Your task to perform on an android device: Show me recent news Image 0: 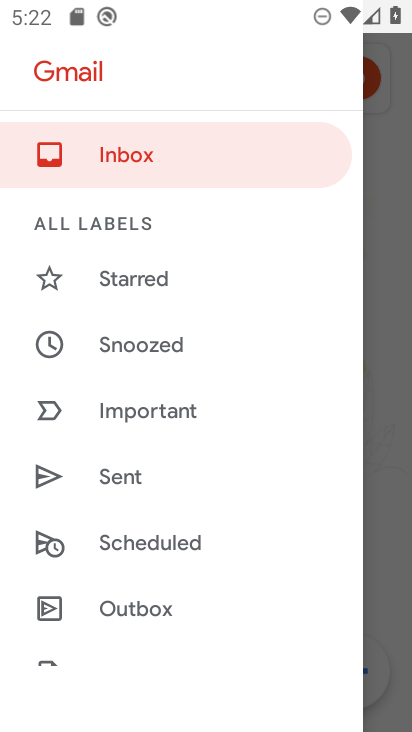
Step 0: press home button
Your task to perform on an android device: Show me recent news Image 1: 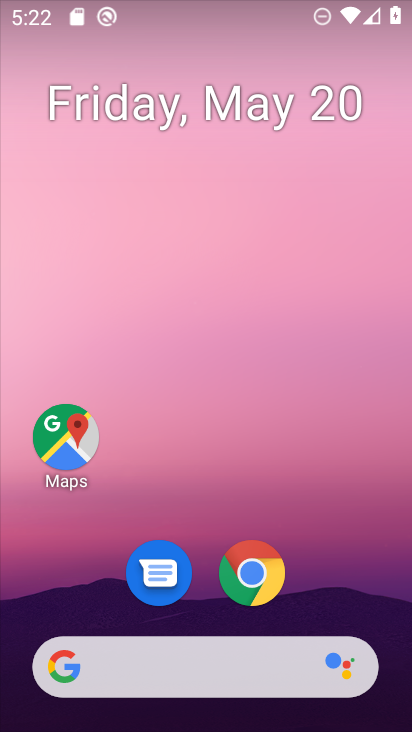
Step 1: drag from (364, 578) to (205, 93)
Your task to perform on an android device: Show me recent news Image 2: 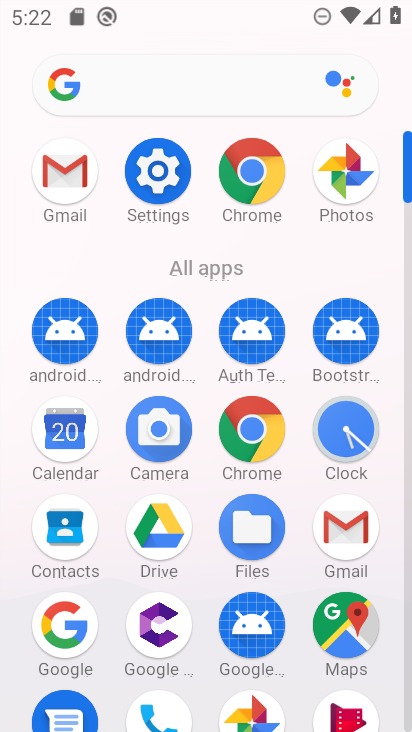
Step 2: click (59, 634)
Your task to perform on an android device: Show me recent news Image 3: 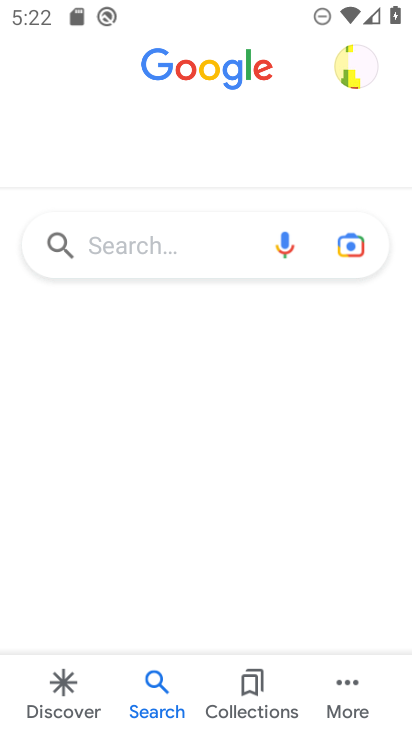
Step 3: click (153, 237)
Your task to perform on an android device: Show me recent news Image 4: 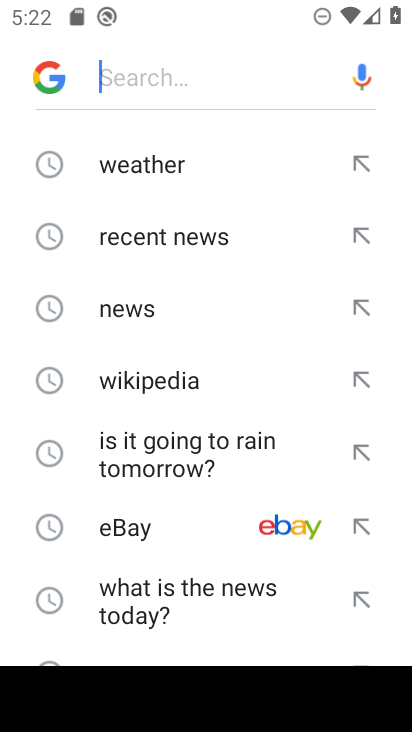
Step 4: click (205, 231)
Your task to perform on an android device: Show me recent news Image 5: 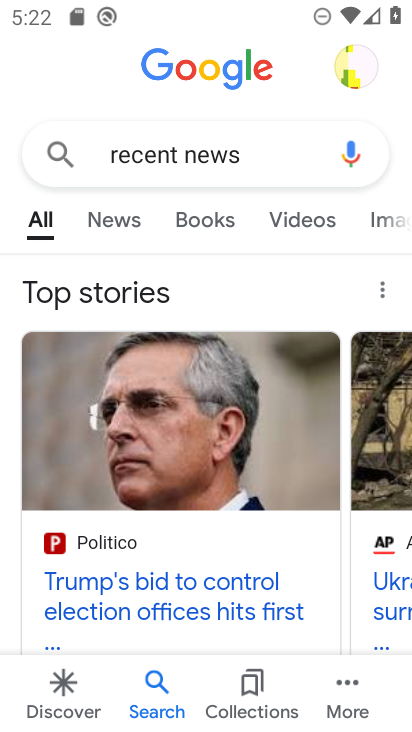
Step 5: task complete